Your task to perform on an android device: Open calendar and show me the fourth week of next month Image 0: 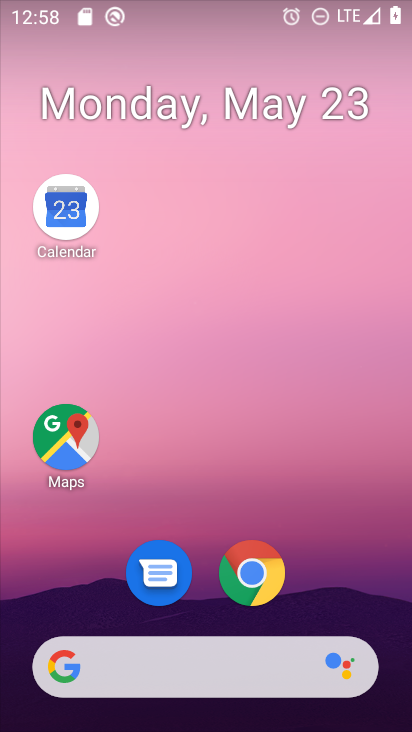
Step 0: drag from (309, 575) to (390, 120)
Your task to perform on an android device: Open calendar and show me the fourth week of next month Image 1: 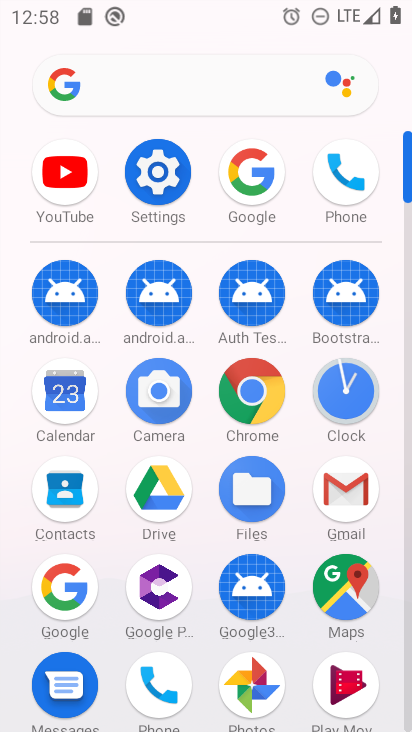
Step 1: click (63, 389)
Your task to perform on an android device: Open calendar and show me the fourth week of next month Image 2: 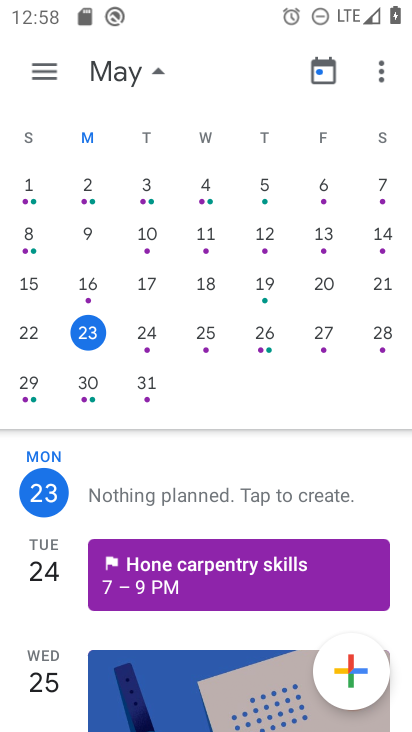
Step 2: drag from (375, 311) to (74, 320)
Your task to perform on an android device: Open calendar and show me the fourth week of next month Image 3: 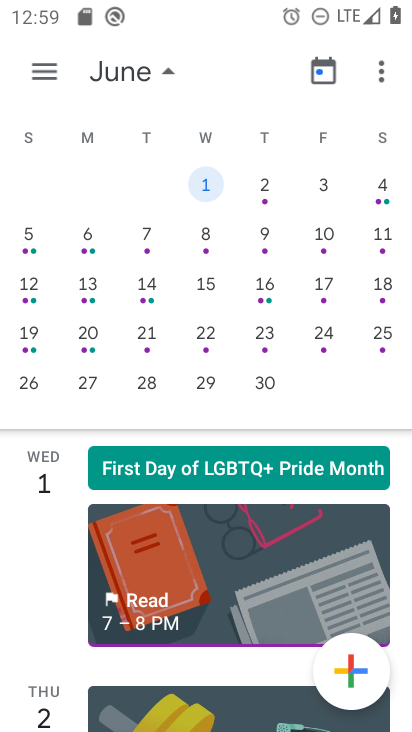
Step 3: click (41, 335)
Your task to perform on an android device: Open calendar and show me the fourth week of next month Image 4: 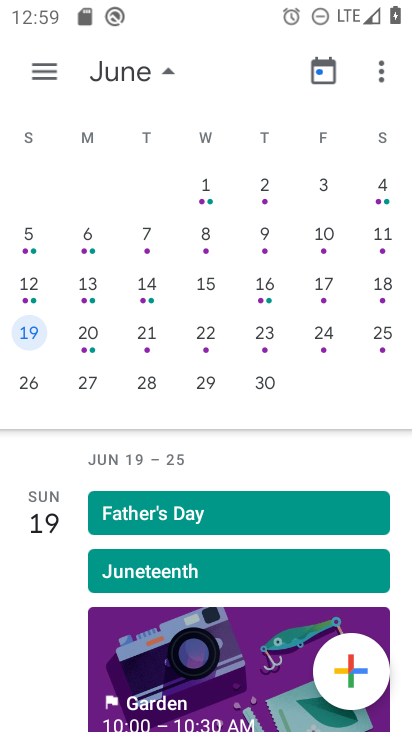
Step 4: task complete